Your task to perform on an android device: Open Youtube and go to "Your channel" Image 0: 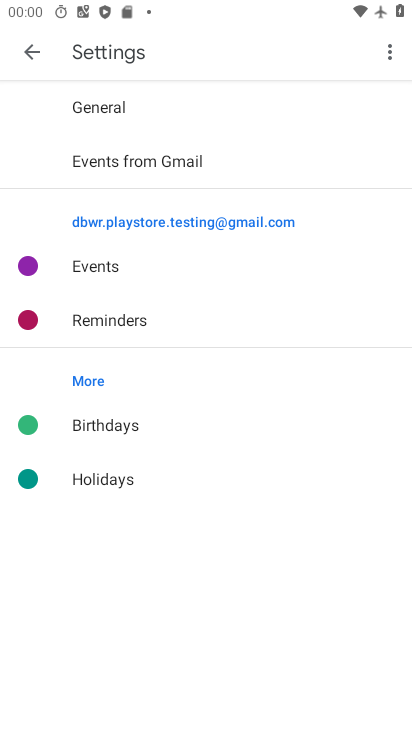
Step 0: press home button
Your task to perform on an android device: Open Youtube and go to "Your channel" Image 1: 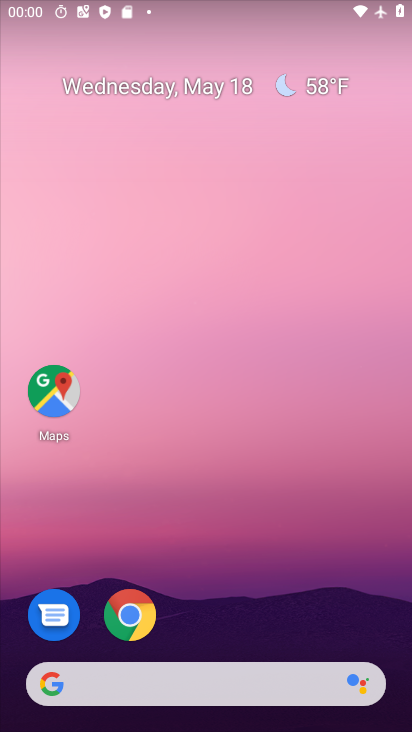
Step 1: drag from (238, 619) to (249, 154)
Your task to perform on an android device: Open Youtube and go to "Your channel" Image 2: 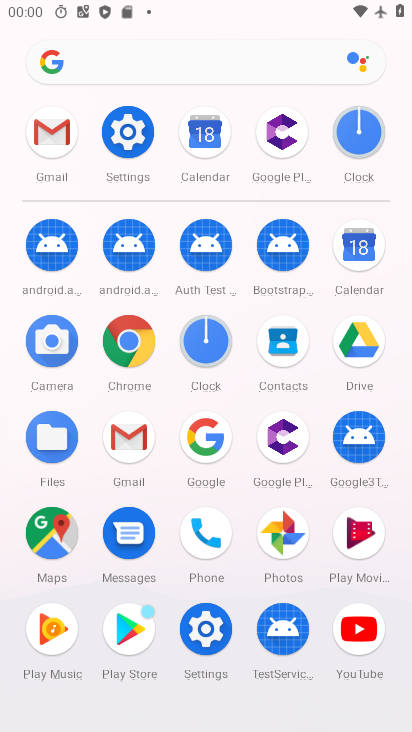
Step 2: click (363, 643)
Your task to perform on an android device: Open Youtube and go to "Your channel" Image 3: 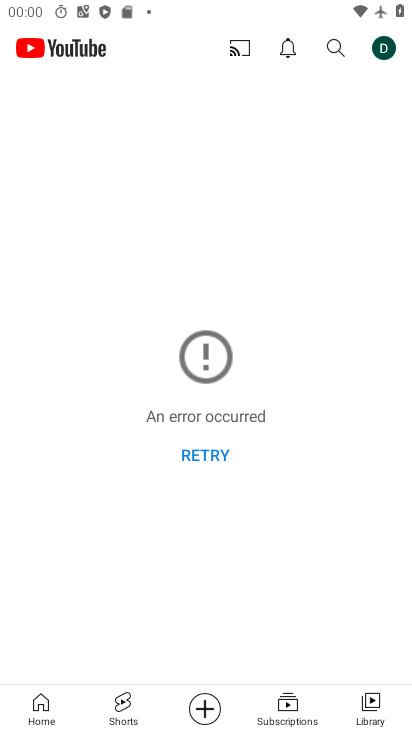
Step 3: click (375, 53)
Your task to perform on an android device: Open Youtube and go to "Your channel" Image 4: 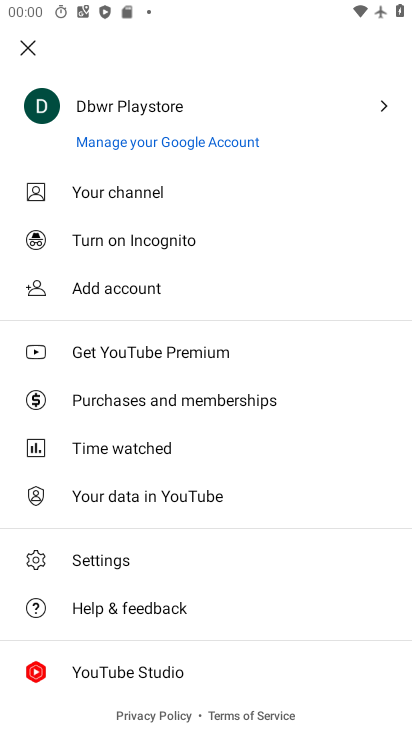
Step 4: click (96, 188)
Your task to perform on an android device: Open Youtube and go to "Your channel" Image 5: 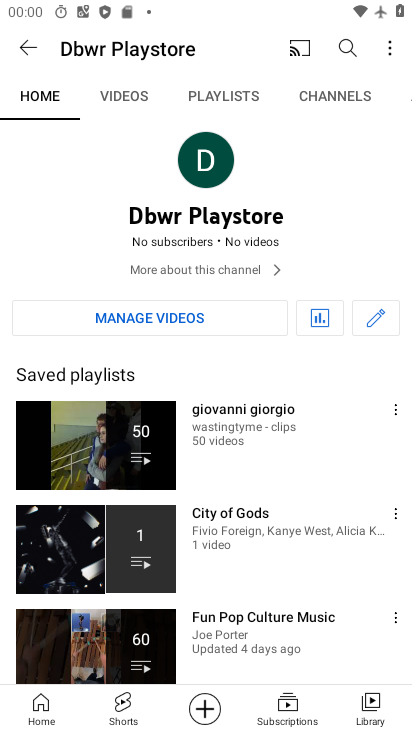
Step 5: task complete